Your task to perform on an android device: turn pop-ups off in chrome Image 0: 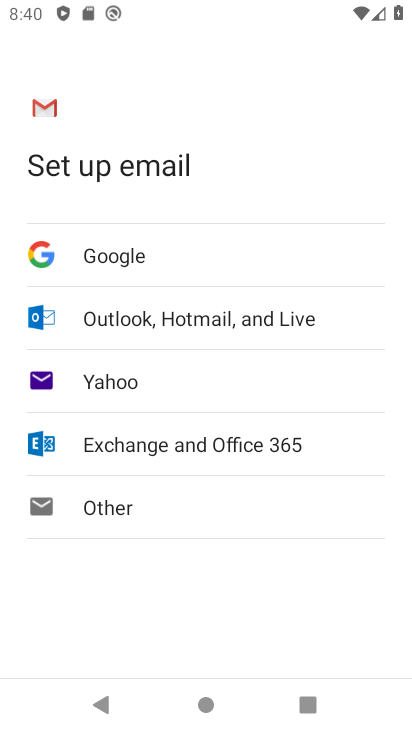
Step 0: press home button
Your task to perform on an android device: turn pop-ups off in chrome Image 1: 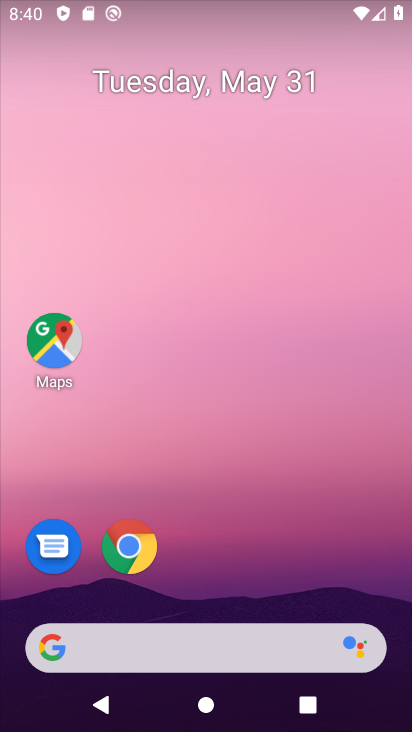
Step 1: drag from (389, 697) to (364, 8)
Your task to perform on an android device: turn pop-ups off in chrome Image 2: 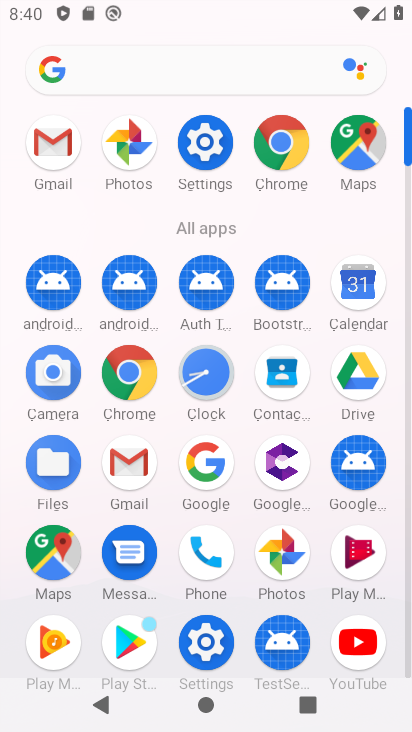
Step 2: click (286, 139)
Your task to perform on an android device: turn pop-ups off in chrome Image 3: 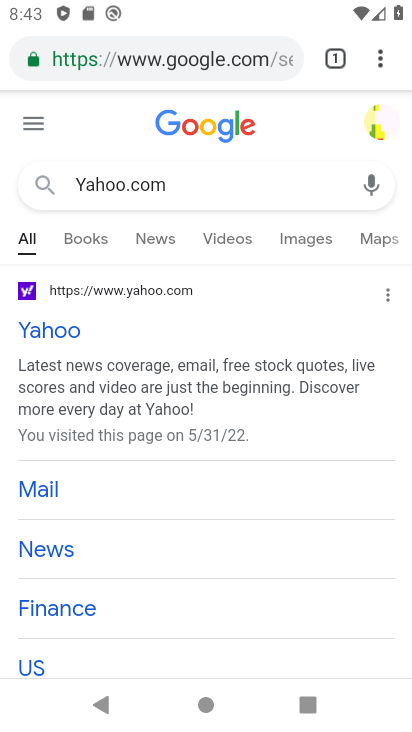
Step 3: click (375, 58)
Your task to perform on an android device: turn pop-ups off in chrome Image 4: 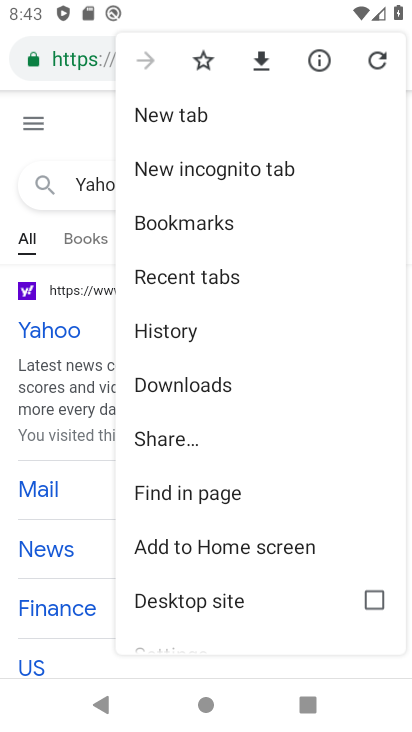
Step 4: drag from (270, 618) to (259, 250)
Your task to perform on an android device: turn pop-ups off in chrome Image 5: 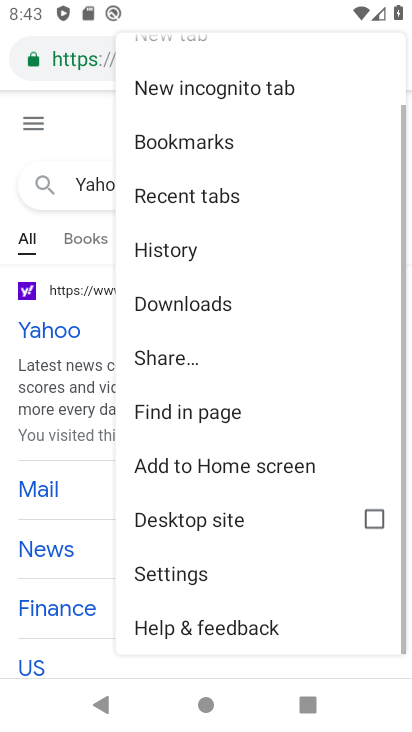
Step 5: click (173, 580)
Your task to perform on an android device: turn pop-ups off in chrome Image 6: 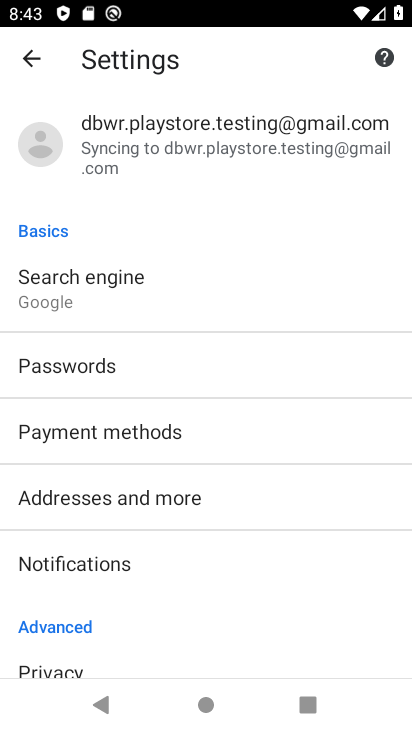
Step 6: drag from (168, 633) to (148, 296)
Your task to perform on an android device: turn pop-ups off in chrome Image 7: 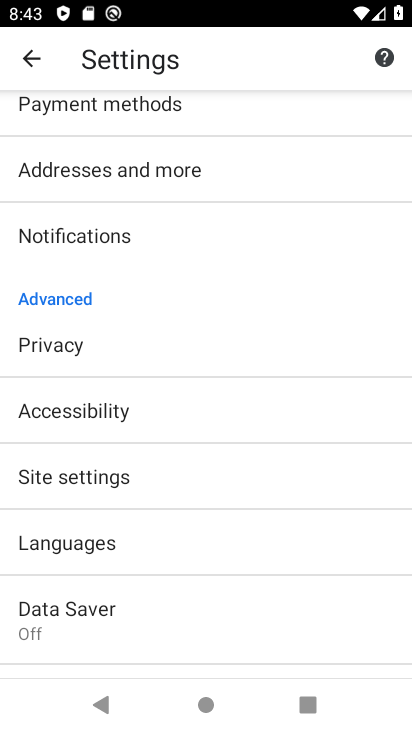
Step 7: click (68, 471)
Your task to perform on an android device: turn pop-ups off in chrome Image 8: 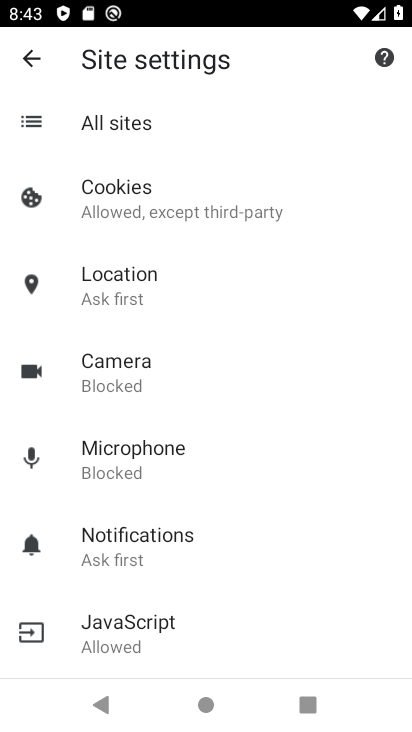
Step 8: drag from (257, 611) to (247, 326)
Your task to perform on an android device: turn pop-ups off in chrome Image 9: 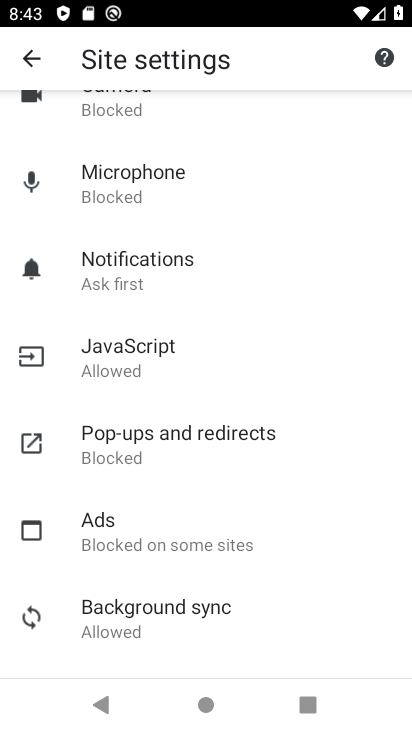
Step 9: click (164, 436)
Your task to perform on an android device: turn pop-ups off in chrome Image 10: 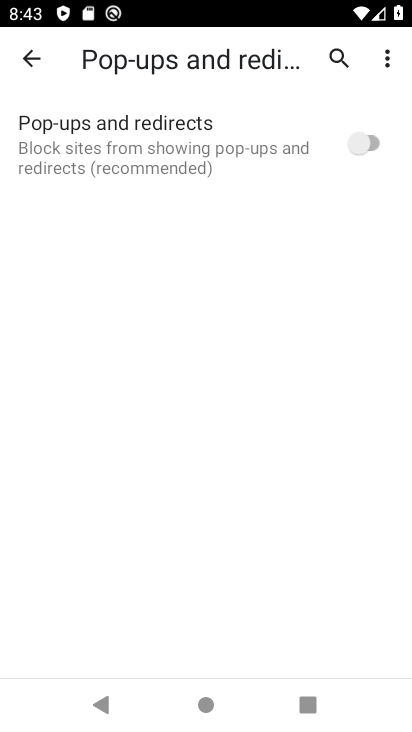
Step 10: task complete